Your task to perform on an android device: toggle translation in the chrome app Image 0: 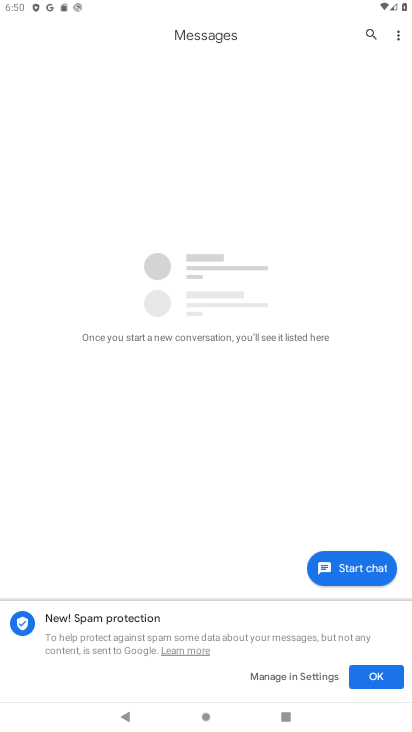
Step 0: drag from (261, 683) to (276, 612)
Your task to perform on an android device: toggle translation in the chrome app Image 1: 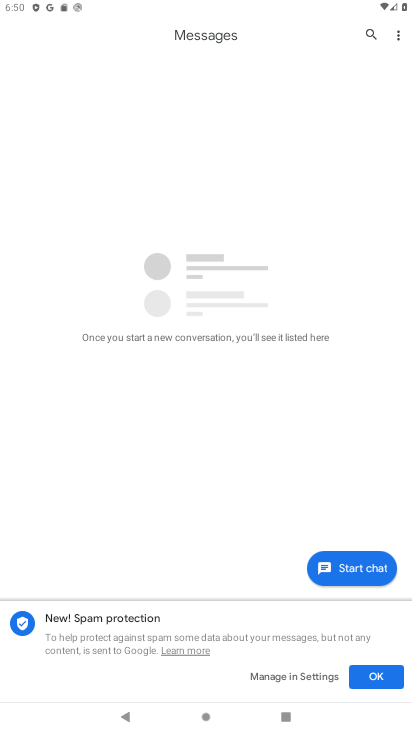
Step 1: press home button
Your task to perform on an android device: toggle translation in the chrome app Image 2: 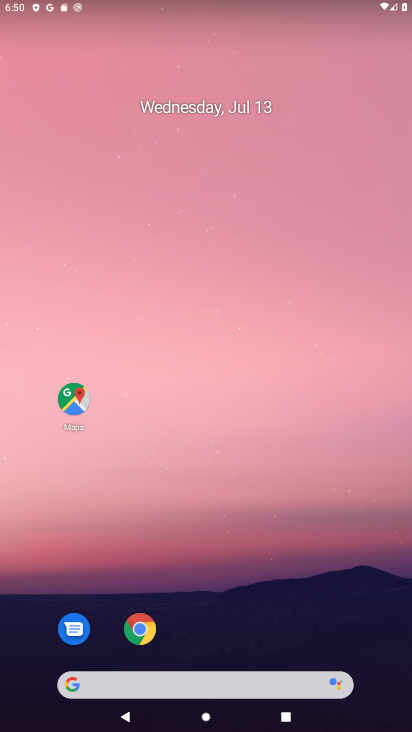
Step 2: click (136, 636)
Your task to perform on an android device: toggle translation in the chrome app Image 3: 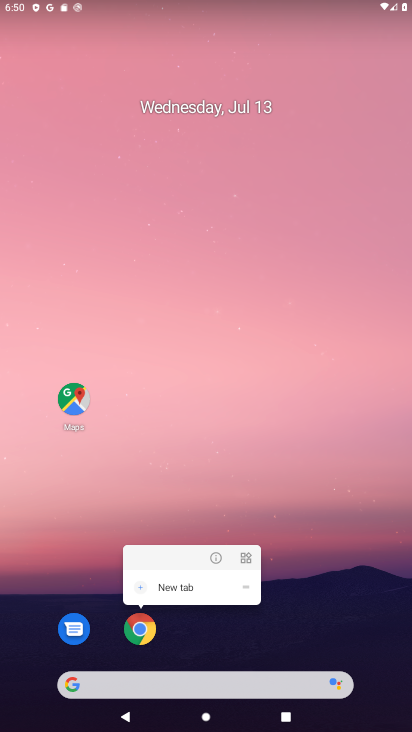
Step 3: click (136, 636)
Your task to perform on an android device: toggle translation in the chrome app Image 4: 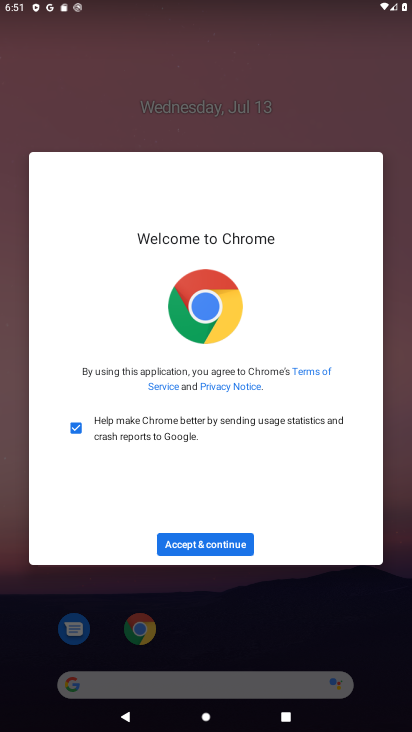
Step 4: click (204, 547)
Your task to perform on an android device: toggle translation in the chrome app Image 5: 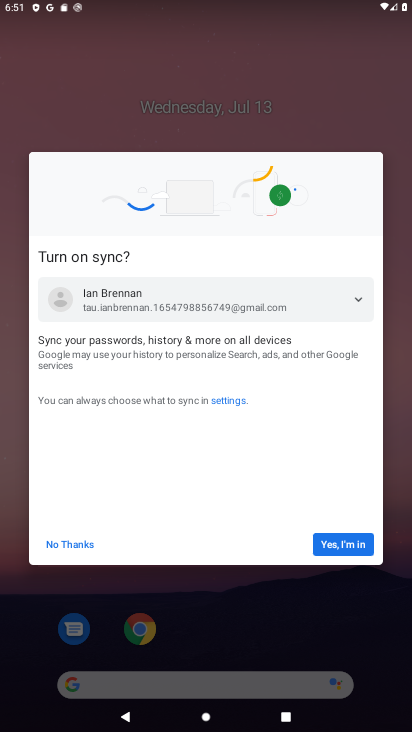
Step 5: click (339, 541)
Your task to perform on an android device: toggle translation in the chrome app Image 6: 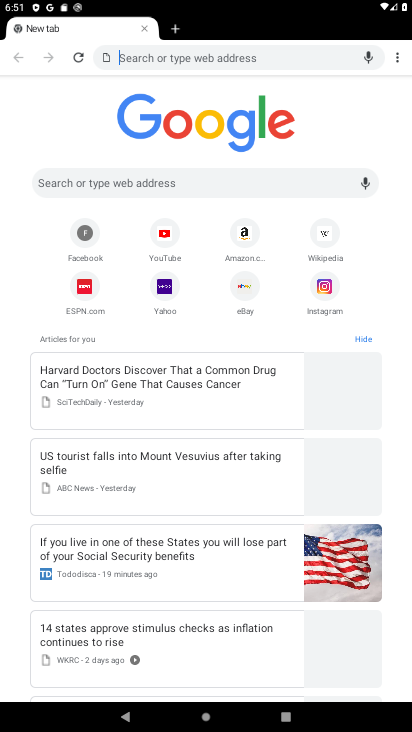
Step 6: click (248, 239)
Your task to perform on an android device: toggle translation in the chrome app Image 7: 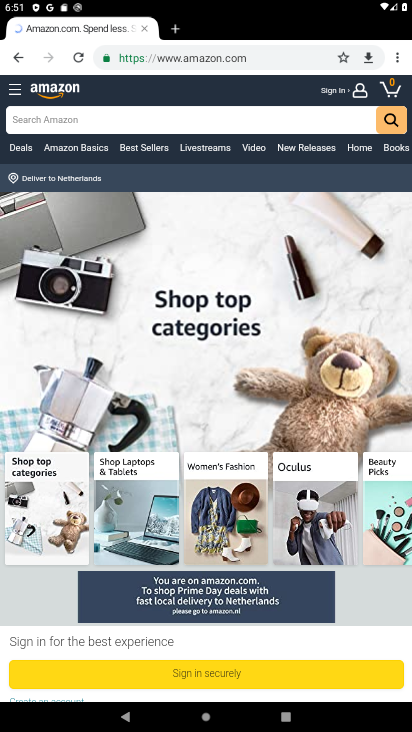
Step 7: task complete